Your task to perform on an android device: turn off translation in the chrome app Image 0: 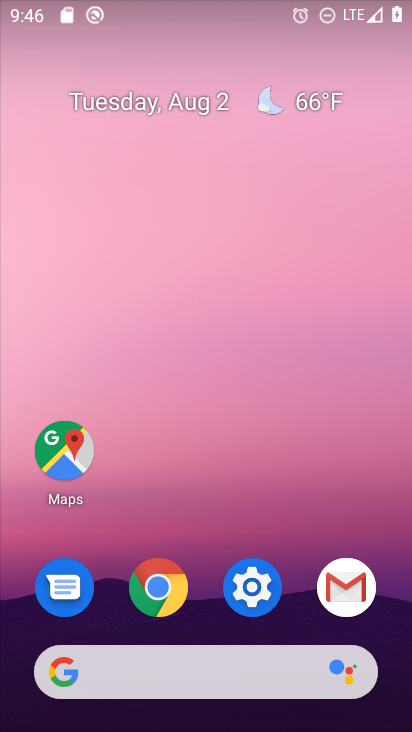
Step 0: click (158, 579)
Your task to perform on an android device: turn off translation in the chrome app Image 1: 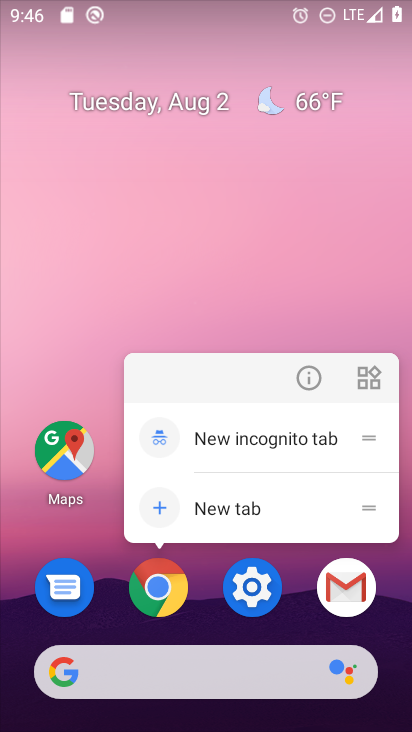
Step 1: click (150, 592)
Your task to perform on an android device: turn off translation in the chrome app Image 2: 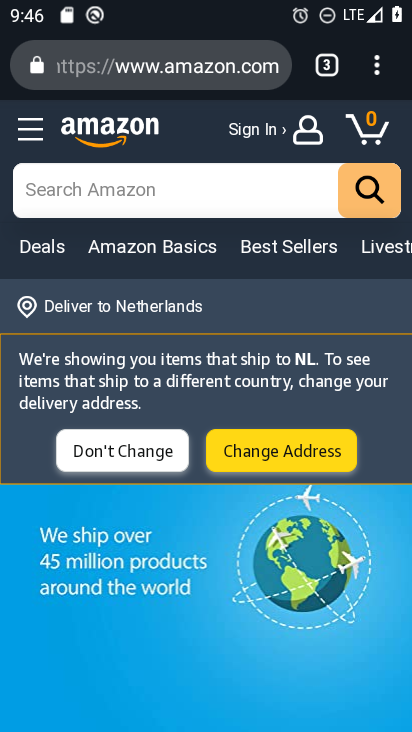
Step 2: click (376, 76)
Your task to perform on an android device: turn off translation in the chrome app Image 3: 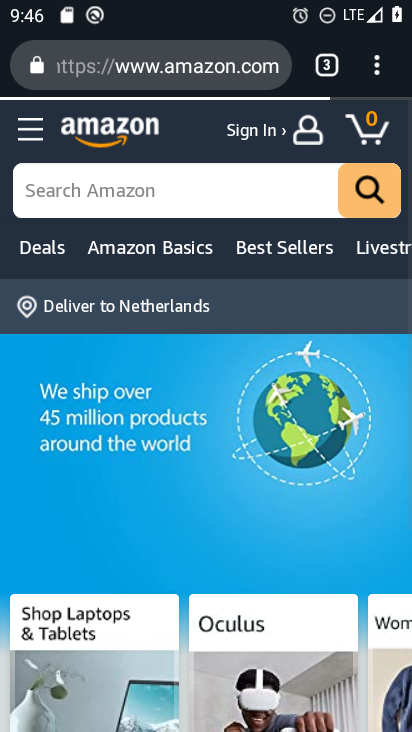
Step 3: click (376, 76)
Your task to perform on an android device: turn off translation in the chrome app Image 4: 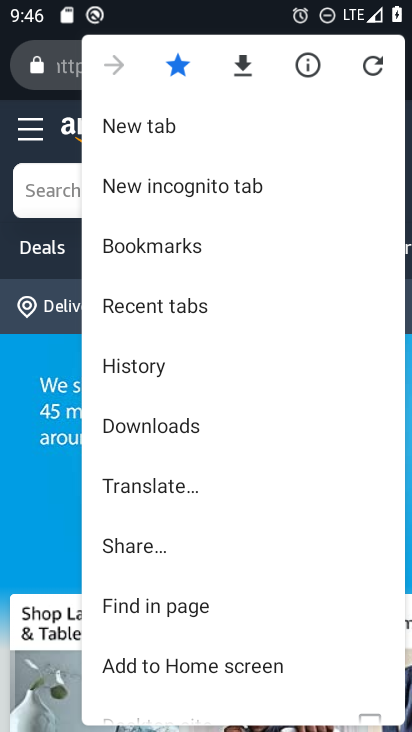
Step 4: drag from (164, 702) to (203, 426)
Your task to perform on an android device: turn off translation in the chrome app Image 5: 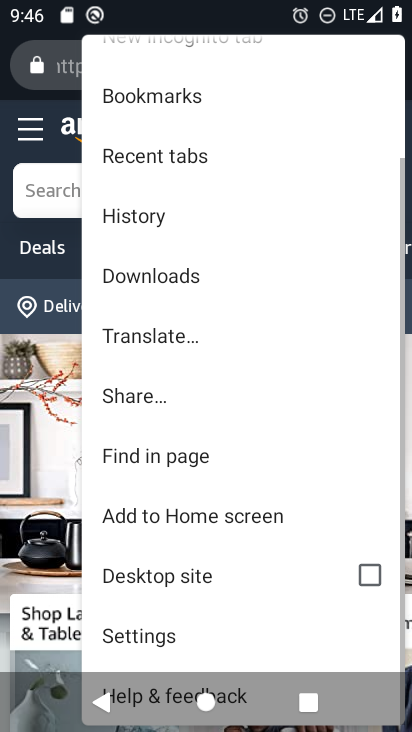
Step 5: click (171, 635)
Your task to perform on an android device: turn off translation in the chrome app Image 6: 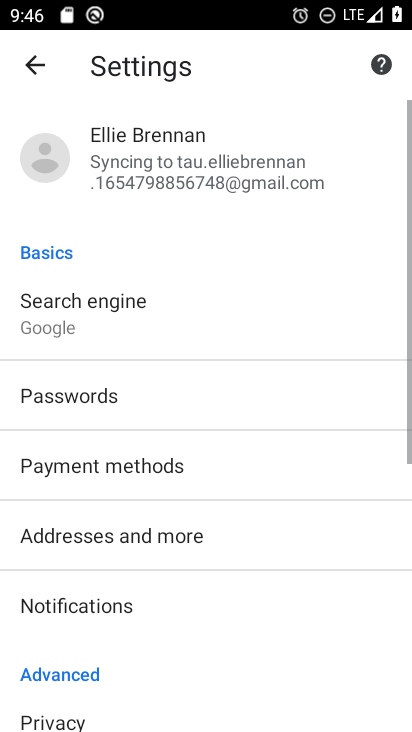
Step 6: drag from (105, 657) to (182, 301)
Your task to perform on an android device: turn off translation in the chrome app Image 7: 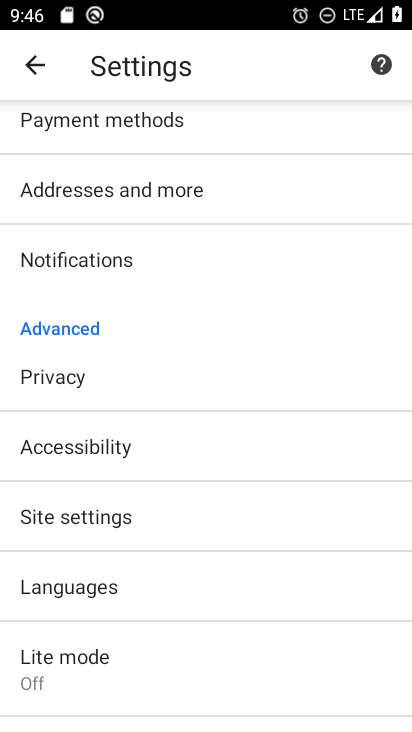
Step 7: click (104, 592)
Your task to perform on an android device: turn off translation in the chrome app Image 8: 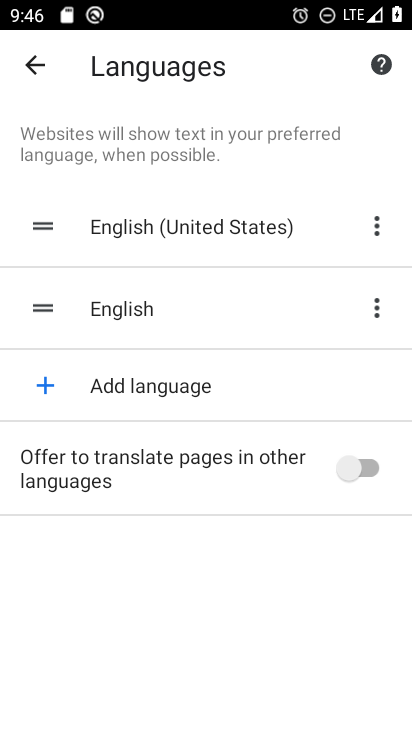
Step 8: click (298, 462)
Your task to perform on an android device: turn off translation in the chrome app Image 9: 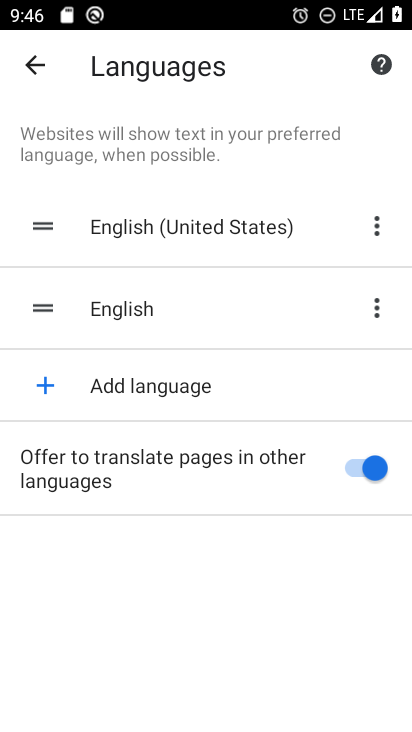
Step 9: click (298, 462)
Your task to perform on an android device: turn off translation in the chrome app Image 10: 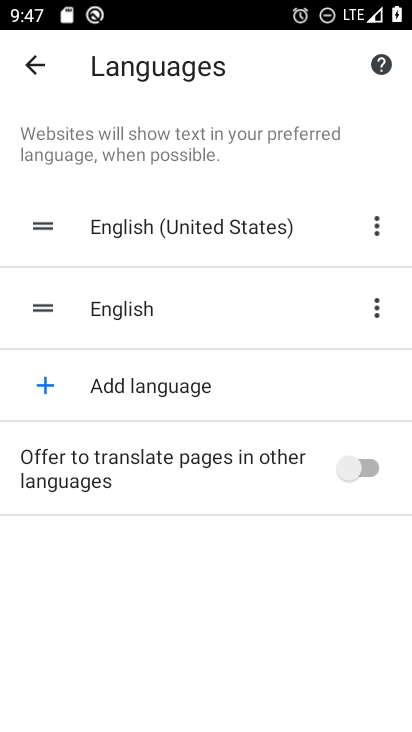
Step 10: task complete